Your task to perform on an android device: Open Google Maps and go to "Timeline" Image 0: 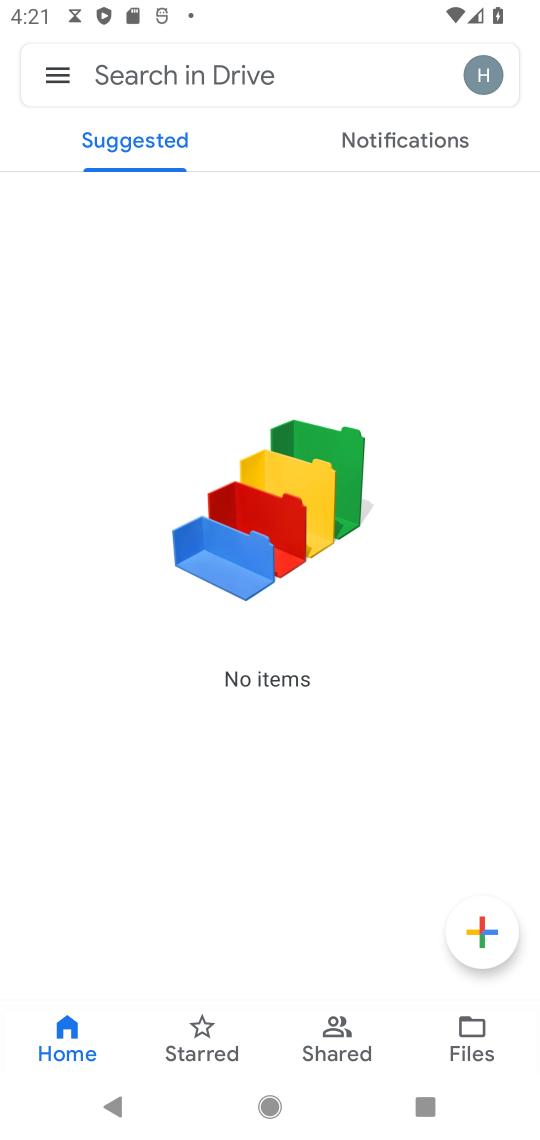
Step 0: press home button
Your task to perform on an android device: Open Google Maps and go to "Timeline" Image 1: 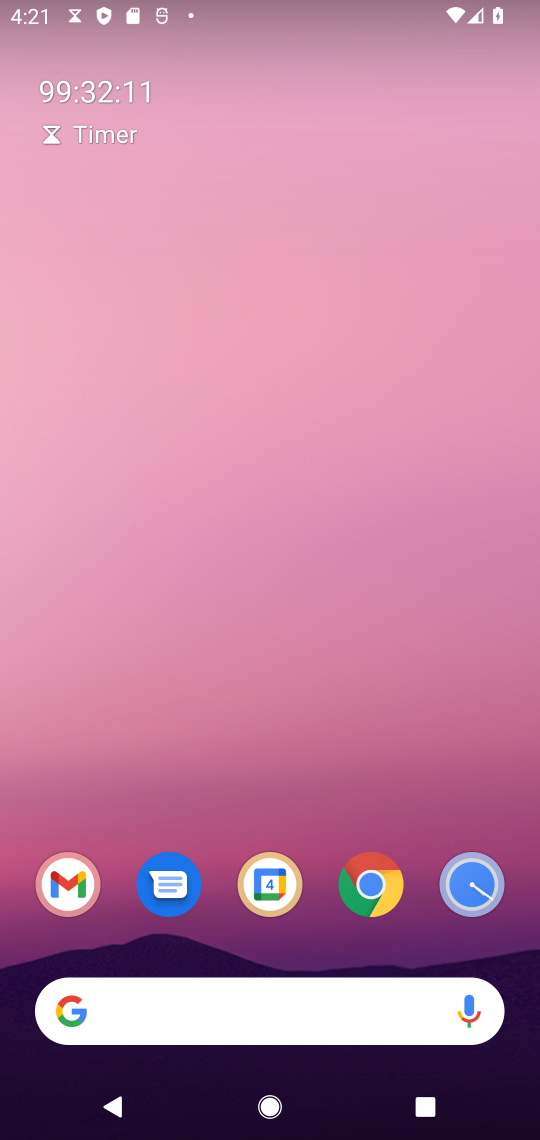
Step 1: drag from (254, 934) to (332, 175)
Your task to perform on an android device: Open Google Maps and go to "Timeline" Image 2: 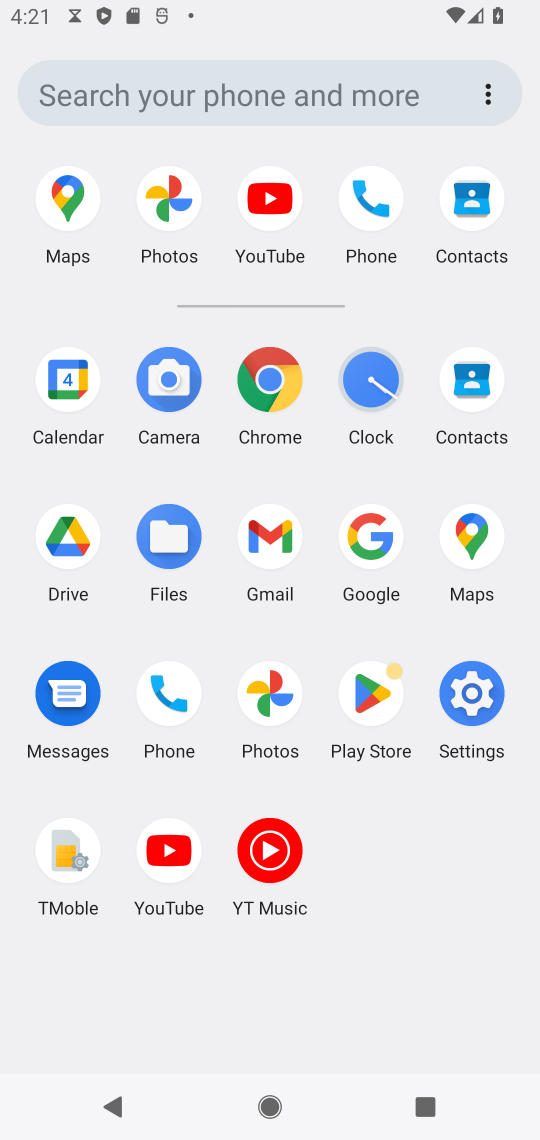
Step 2: click (264, 688)
Your task to perform on an android device: Open Google Maps and go to "Timeline" Image 3: 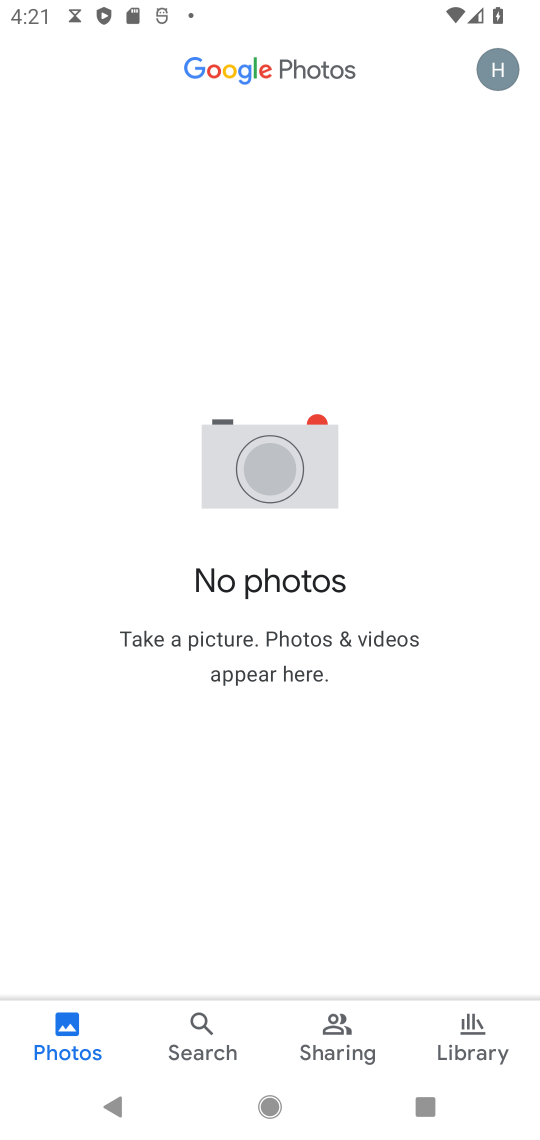
Step 3: press home button
Your task to perform on an android device: Open Google Maps and go to "Timeline" Image 4: 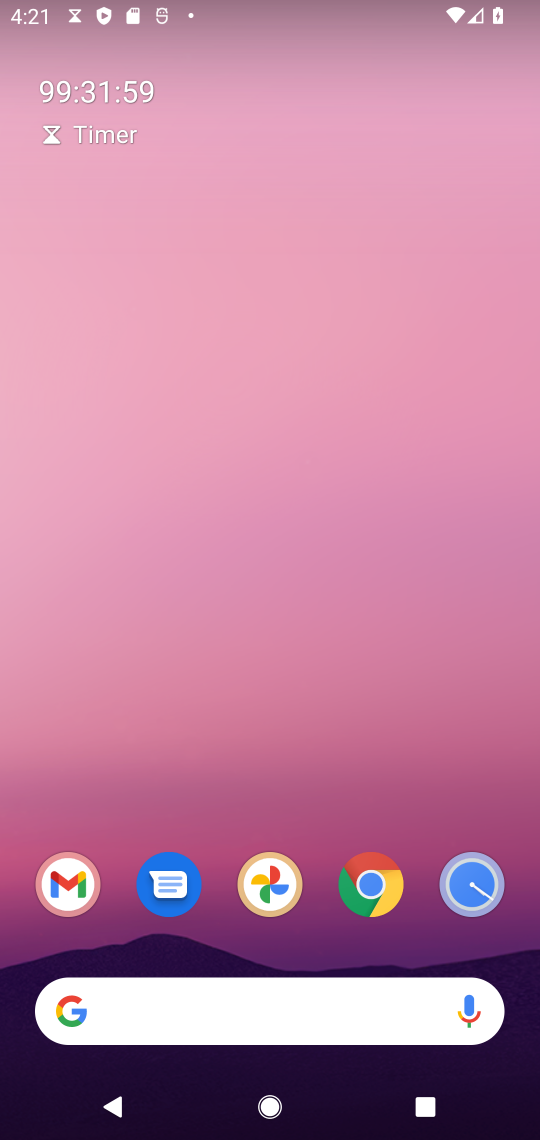
Step 4: drag from (235, 940) to (317, 252)
Your task to perform on an android device: Open Google Maps and go to "Timeline" Image 5: 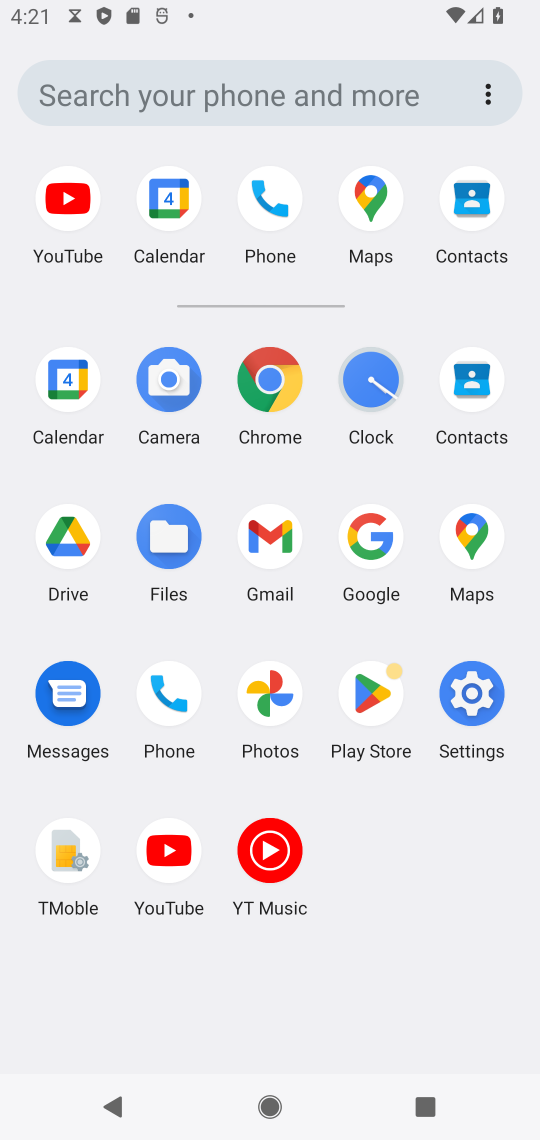
Step 5: click (484, 530)
Your task to perform on an android device: Open Google Maps and go to "Timeline" Image 6: 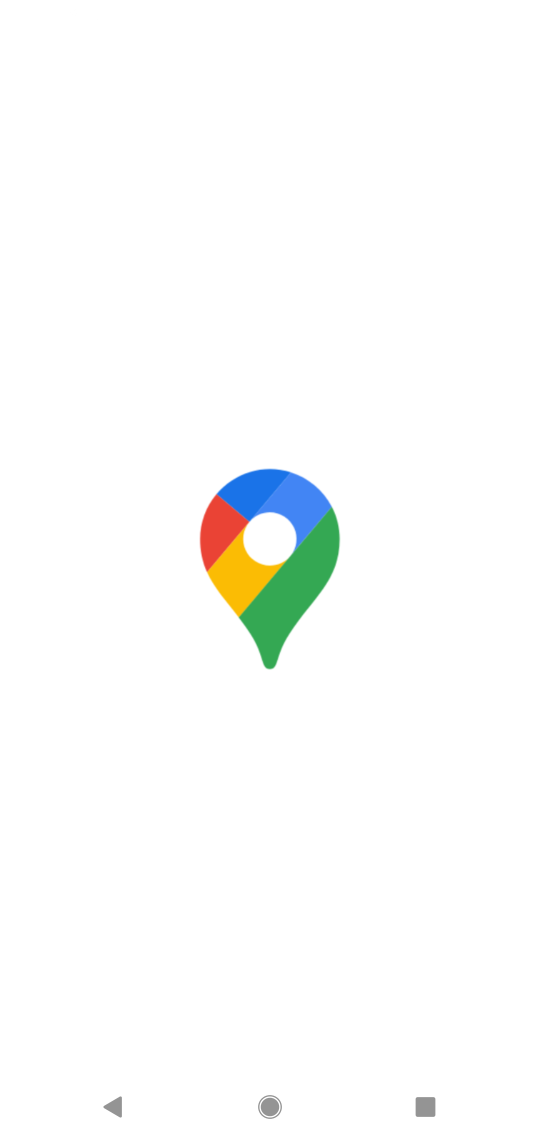
Step 6: task complete